Your task to perform on an android device: turn notification dots off Image 0: 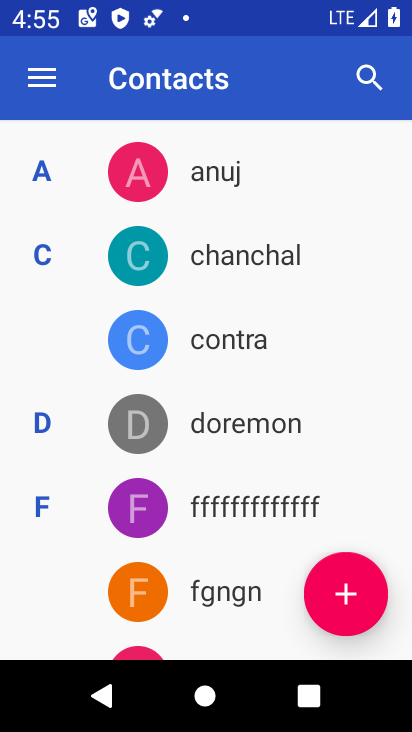
Step 0: press back button
Your task to perform on an android device: turn notification dots off Image 1: 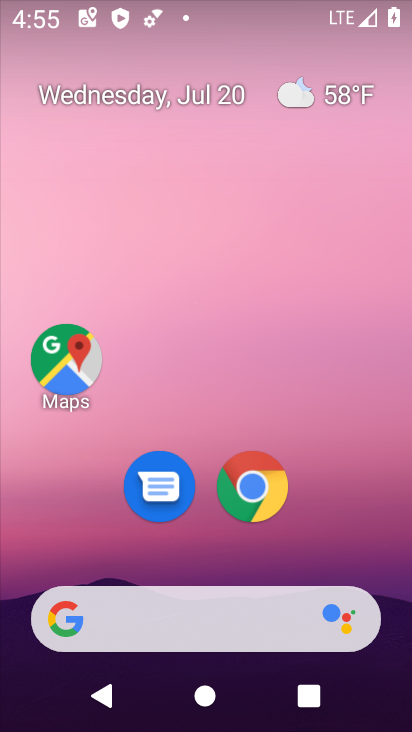
Step 1: drag from (191, 557) to (211, 17)
Your task to perform on an android device: turn notification dots off Image 2: 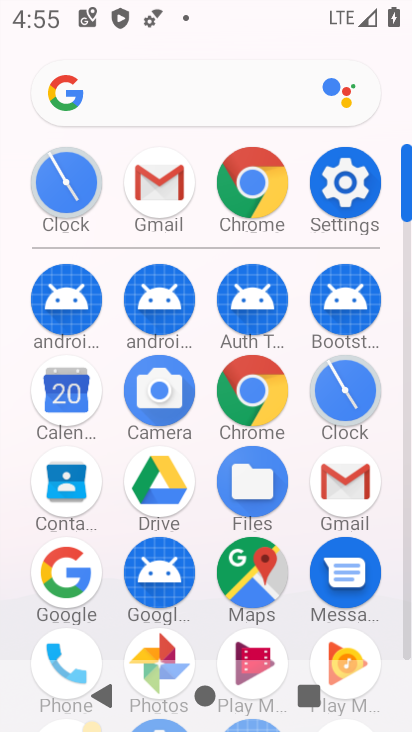
Step 2: click (340, 187)
Your task to perform on an android device: turn notification dots off Image 3: 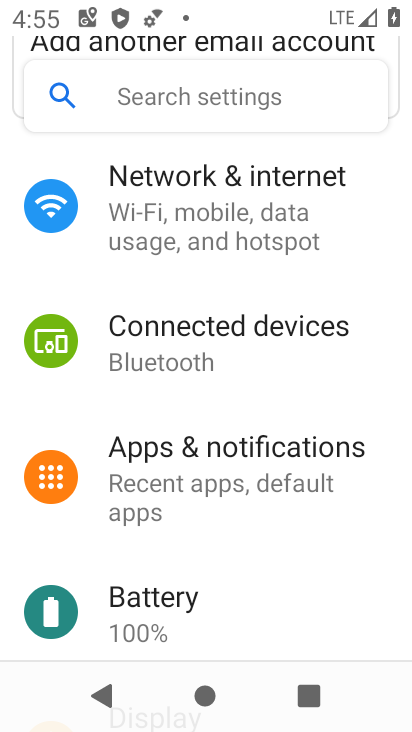
Step 3: click (215, 457)
Your task to perform on an android device: turn notification dots off Image 4: 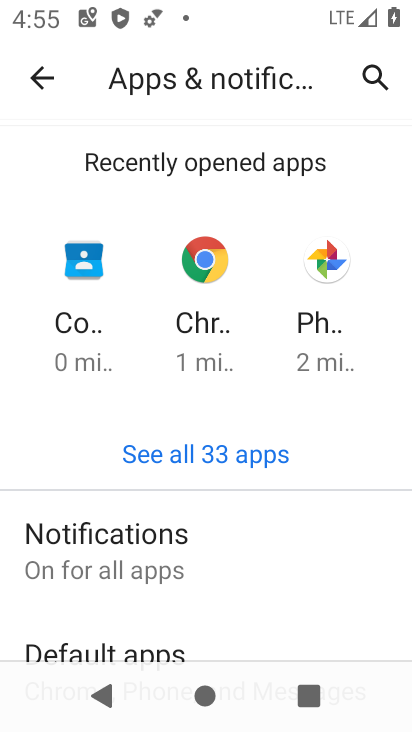
Step 4: click (116, 531)
Your task to perform on an android device: turn notification dots off Image 5: 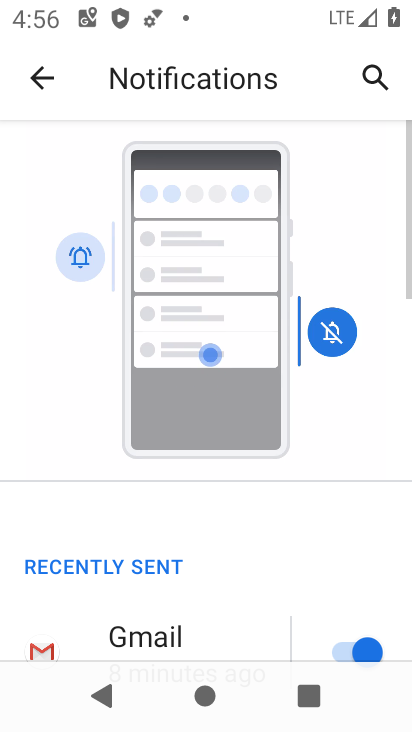
Step 5: drag from (148, 620) to (222, 61)
Your task to perform on an android device: turn notification dots off Image 6: 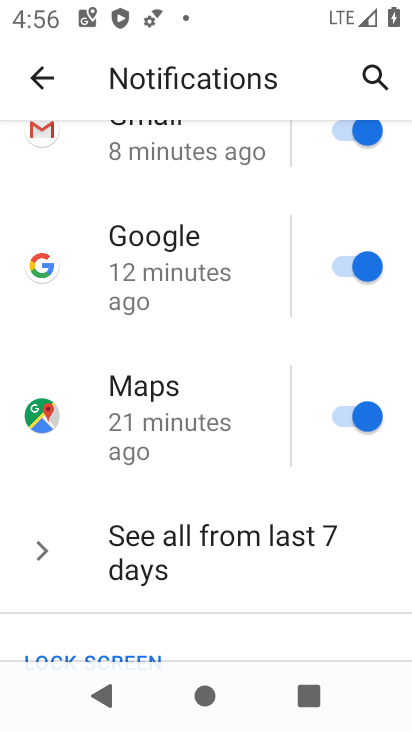
Step 6: drag from (162, 613) to (240, 65)
Your task to perform on an android device: turn notification dots off Image 7: 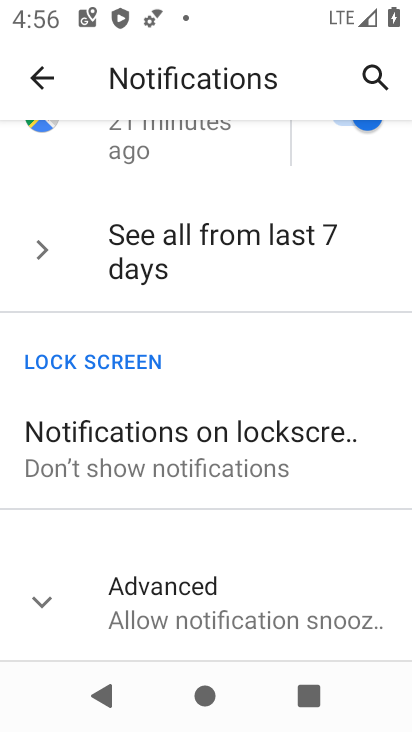
Step 7: click (177, 620)
Your task to perform on an android device: turn notification dots off Image 8: 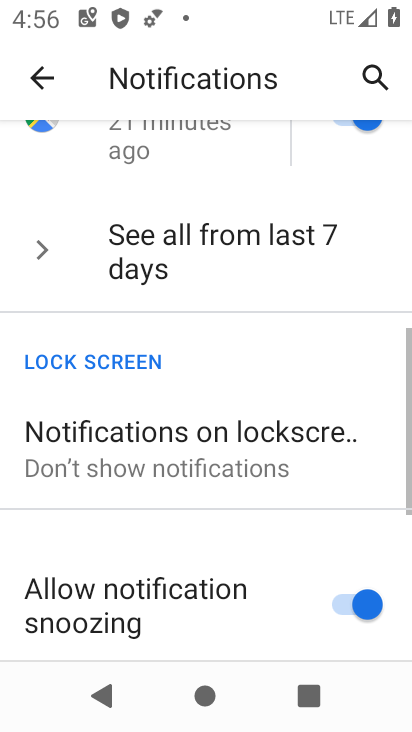
Step 8: drag from (218, 513) to (227, 129)
Your task to perform on an android device: turn notification dots off Image 9: 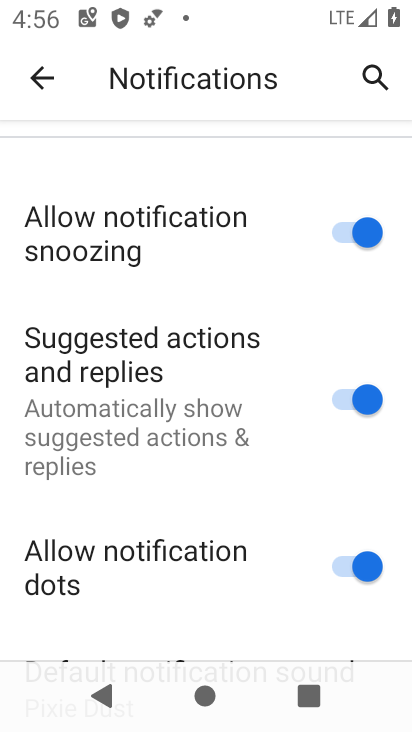
Step 9: click (355, 575)
Your task to perform on an android device: turn notification dots off Image 10: 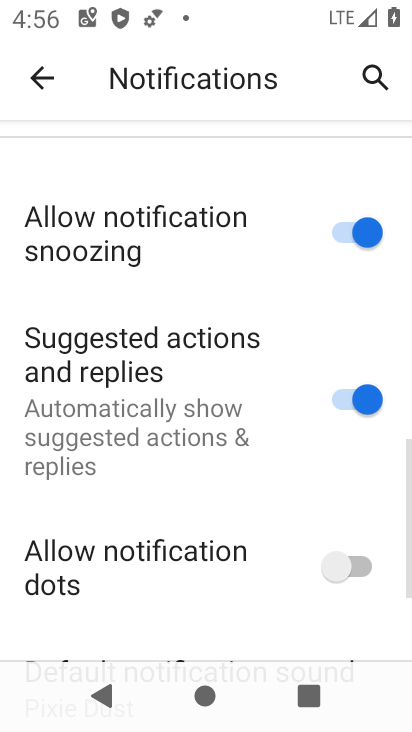
Step 10: task complete